Your task to perform on an android device: Do I have any events tomorrow? Image 0: 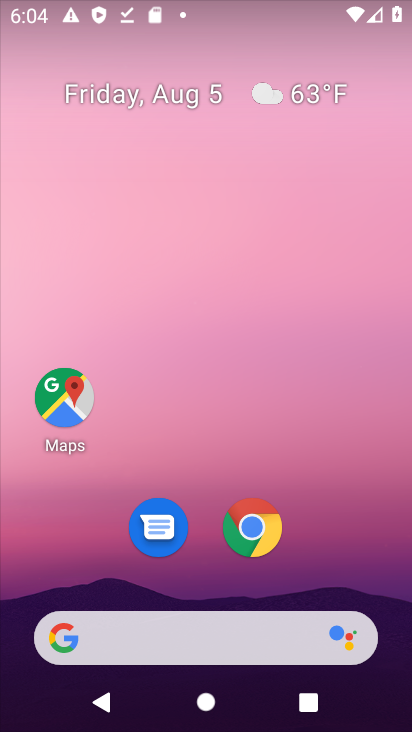
Step 0: click (271, 115)
Your task to perform on an android device: Do I have any events tomorrow? Image 1: 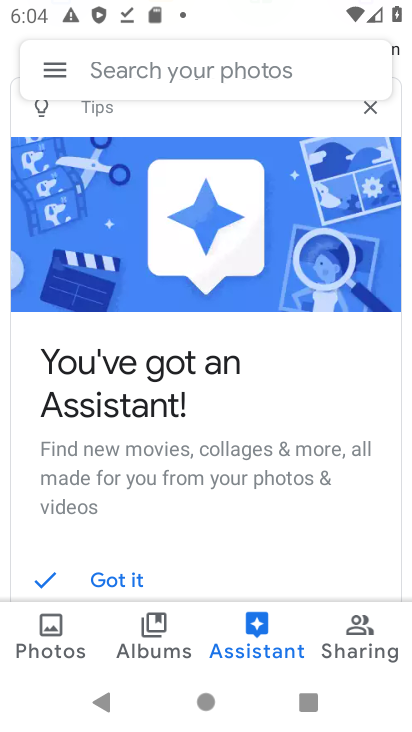
Step 1: drag from (213, 559) to (273, 128)
Your task to perform on an android device: Do I have any events tomorrow? Image 2: 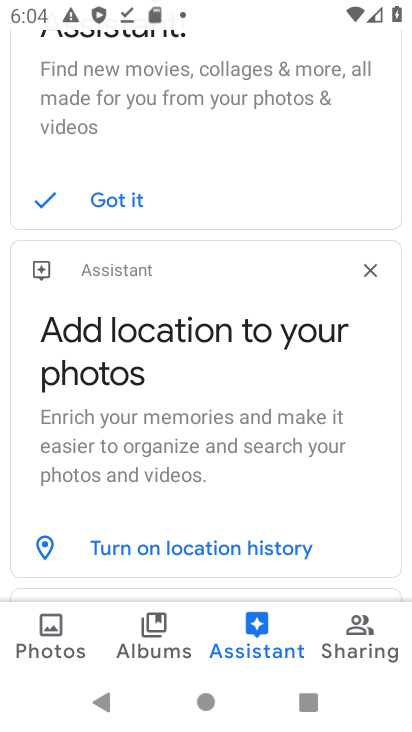
Step 2: drag from (187, 392) to (241, 220)
Your task to perform on an android device: Do I have any events tomorrow? Image 3: 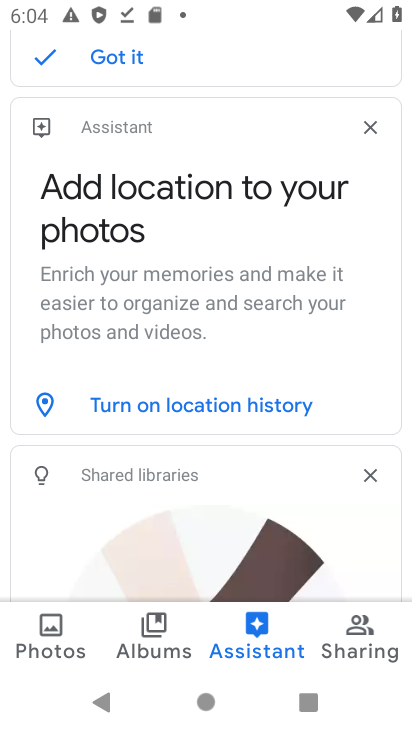
Step 3: drag from (175, 205) to (219, 564)
Your task to perform on an android device: Do I have any events tomorrow? Image 4: 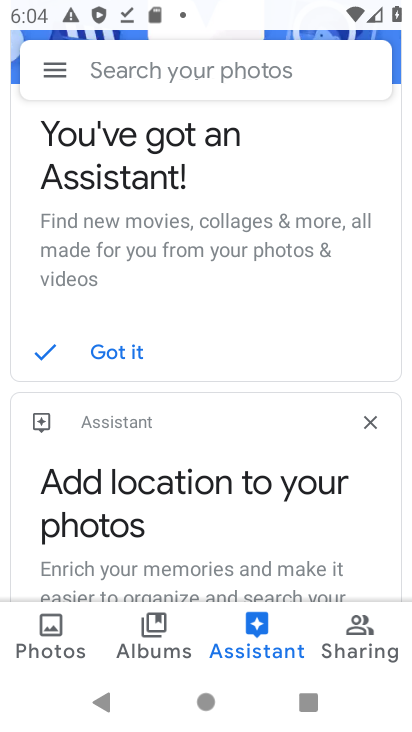
Step 4: press home button
Your task to perform on an android device: Do I have any events tomorrow? Image 5: 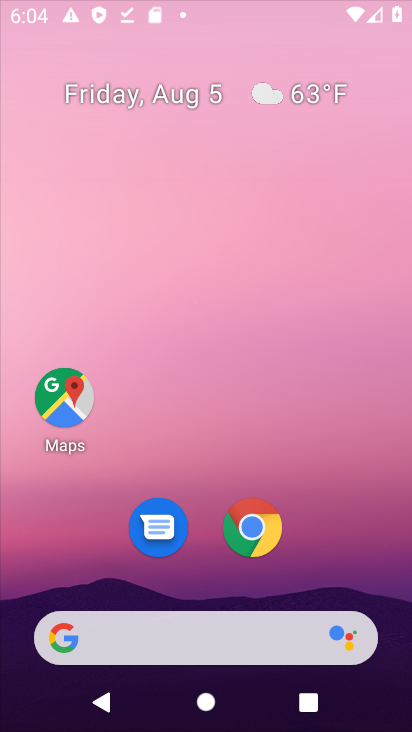
Step 5: drag from (246, 540) to (302, 10)
Your task to perform on an android device: Do I have any events tomorrow? Image 6: 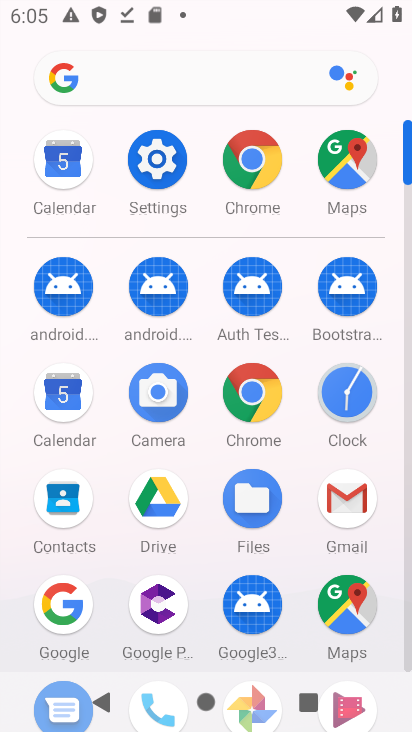
Step 6: click (62, 160)
Your task to perform on an android device: Do I have any events tomorrow? Image 7: 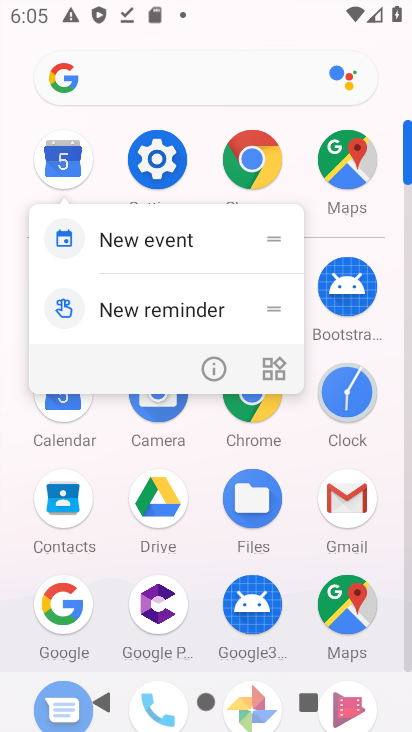
Step 7: click (202, 371)
Your task to perform on an android device: Do I have any events tomorrow? Image 8: 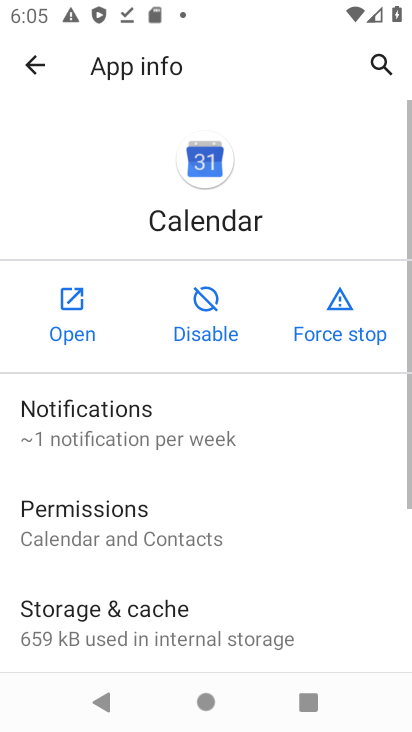
Step 8: click (62, 316)
Your task to perform on an android device: Do I have any events tomorrow? Image 9: 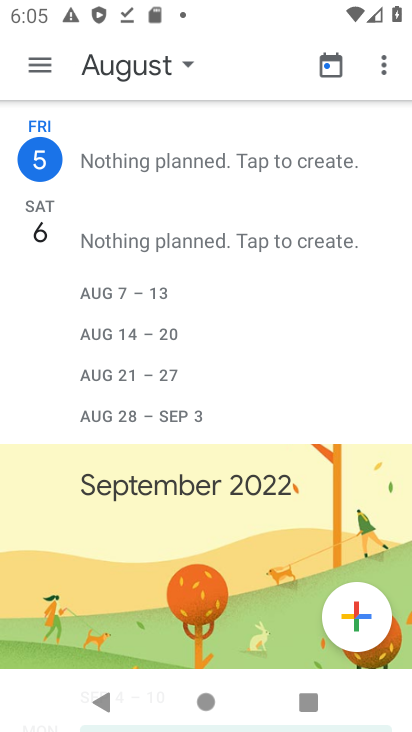
Step 9: click (330, 67)
Your task to perform on an android device: Do I have any events tomorrow? Image 10: 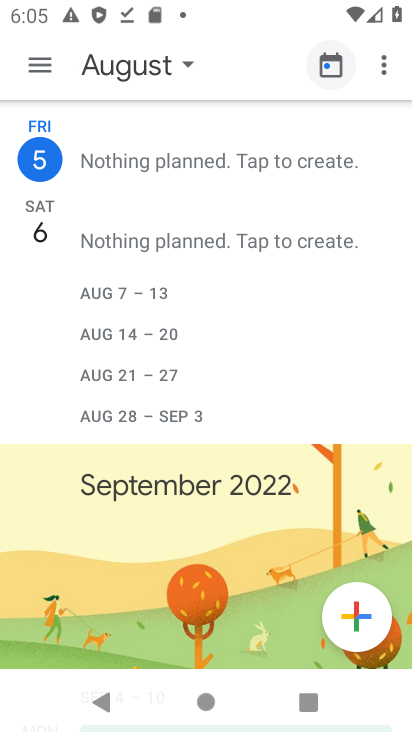
Step 10: click (159, 65)
Your task to perform on an android device: Do I have any events tomorrow? Image 11: 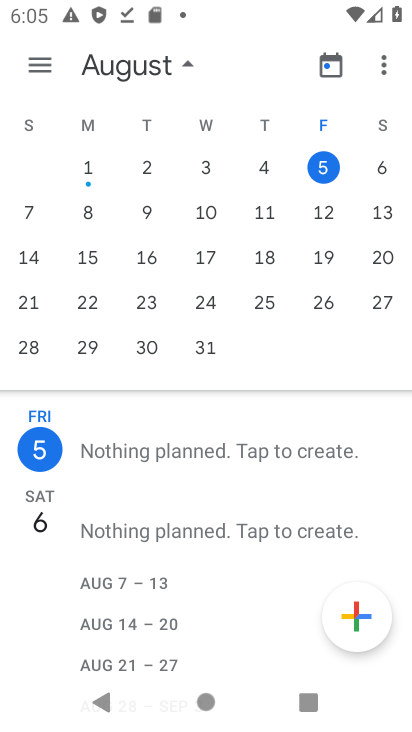
Step 11: click (380, 167)
Your task to perform on an android device: Do I have any events tomorrow? Image 12: 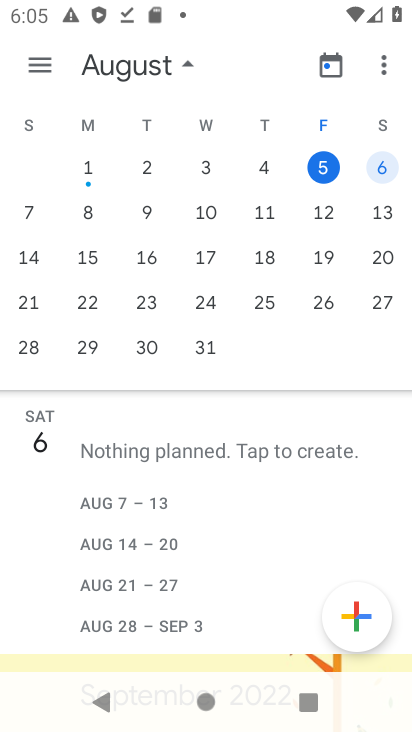
Step 12: task complete